Your task to perform on an android device: Search for Mexican restaurants on Maps Image 0: 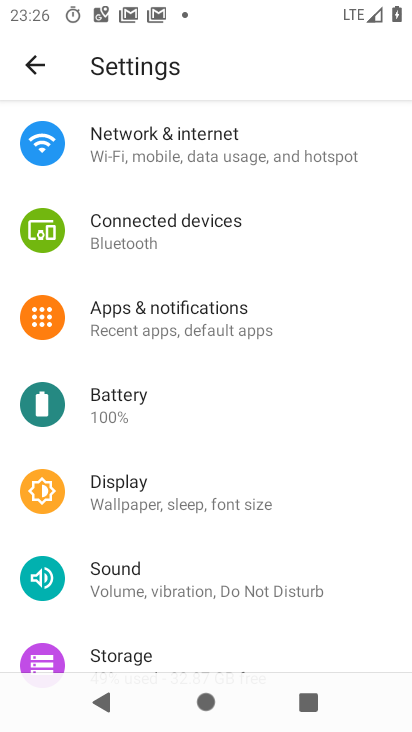
Step 0: press home button
Your task to perform on an android device: Search for Mexican restaurants on Maps Image 1: 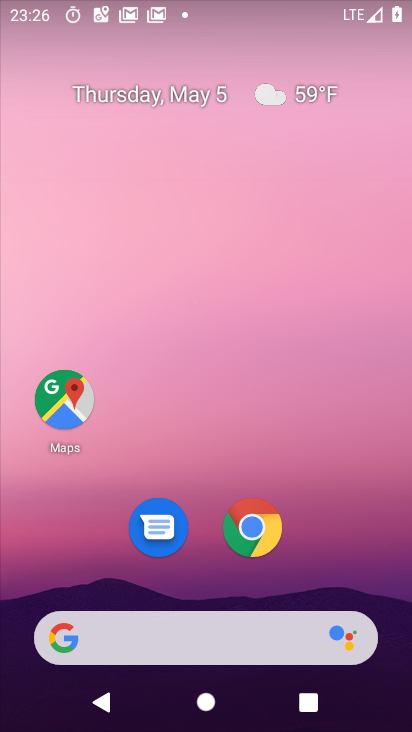
Step 1: click (71, 408)
Your task to perform on an android device: Search for Mexican restaurants on Maps Image 2: 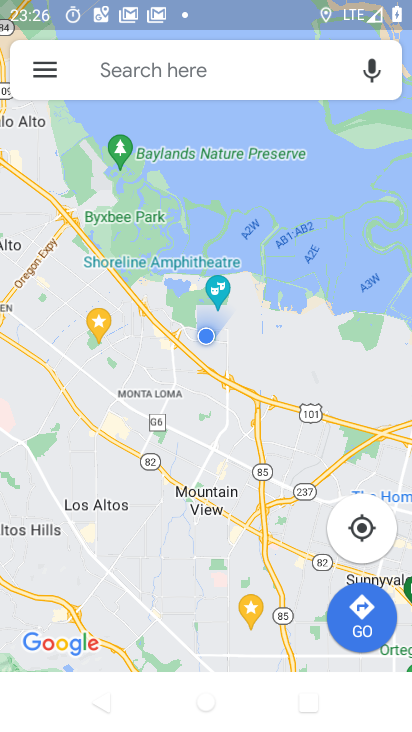
Step 2: click (158, 79)
Your task to perform on an android device: Search for Mexican restaurants on Maps Image 3: 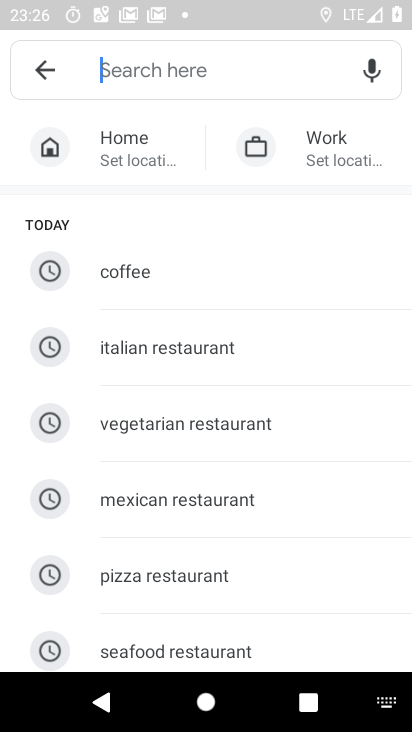
Step 3: type "mexican restaurants"
Your task to perform on an android device: Search for Mexican restaurants on Maps Image 4: 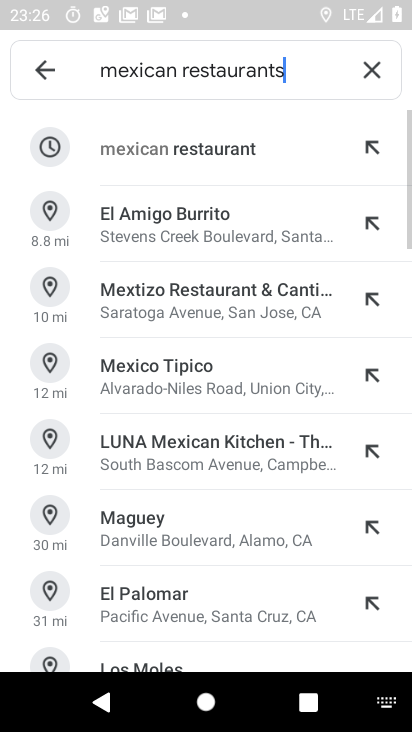
Step 4: click (210, 158)
Your task to perform on an android device: Search for Mexican restaurants on Maps Image 5: 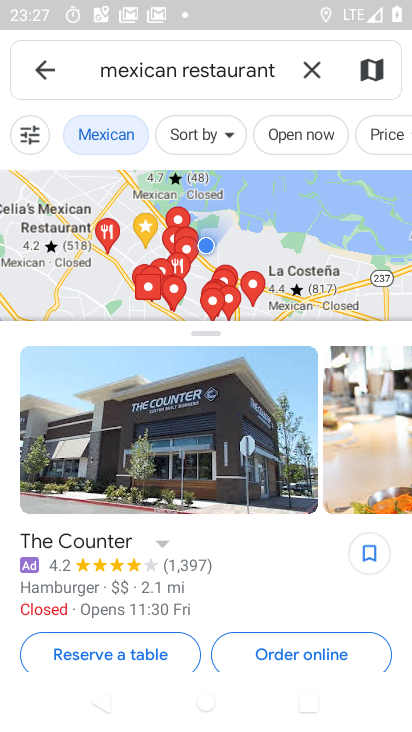
Step 5: task complete